Your task to perform on an android device: Open Yahoo.com Image 0: 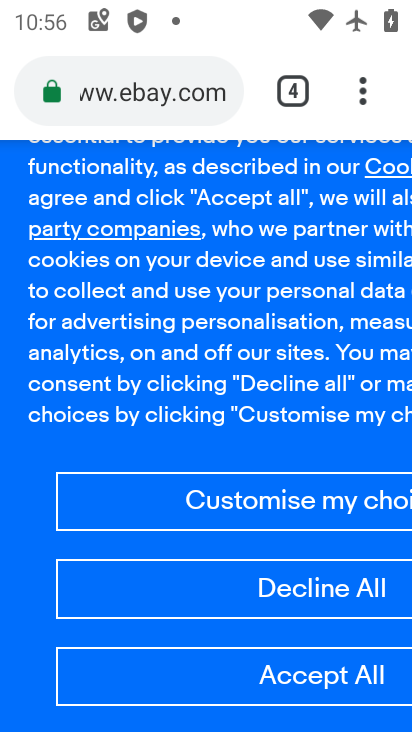
Step 0: press home button
Your task to perform on an android device: Open Yahoo.com Image 1: 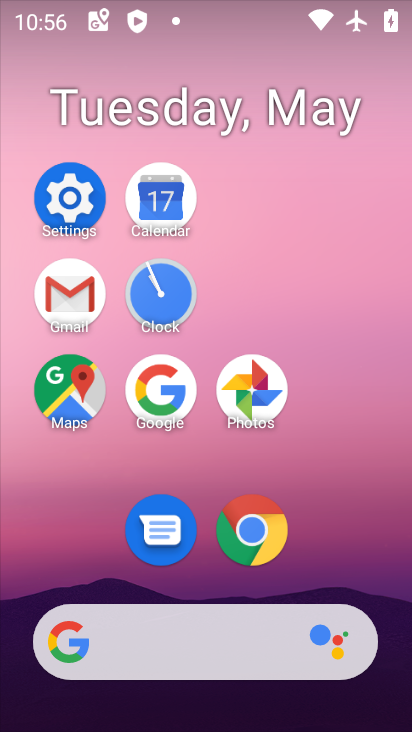
Step 1: click (259, 522)
Your task to perform on an android device: Open Yahoo.com Image 2: 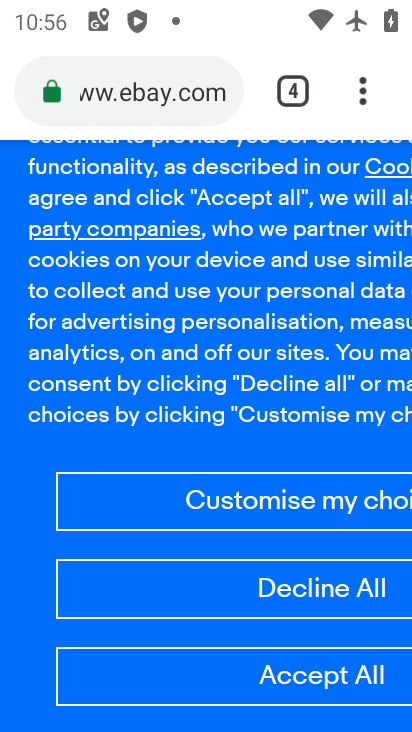
Step 2: click (298, 82)
Your task to perform on an android device: Open Yahoo.com Image 3: 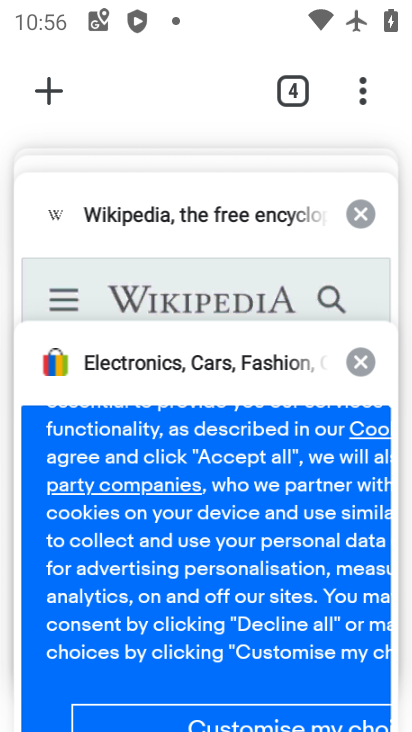
Step 3: drag from (235, 254) to (209, 460)
Your task to perform on an android device: Open Yahoo.com Image 4: 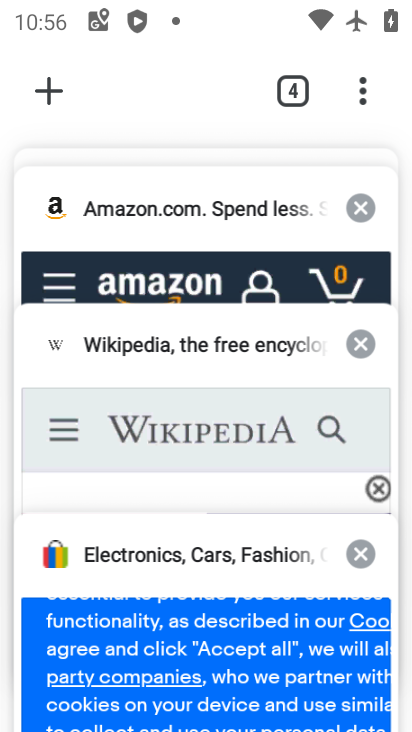
Step 4: drag from (212, 203) to (202, 453)
Your task to perform on an android device: Open Yahoo.com Image 5: 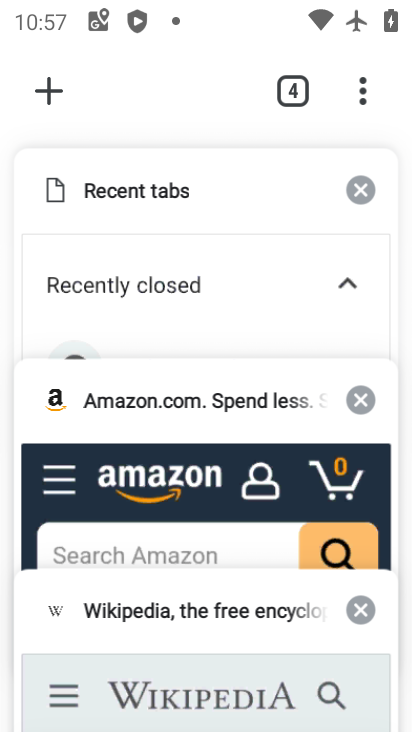
Step 5: click (65, 82)
Your task to perform on an android device: Open Yahoo.com Image 6: 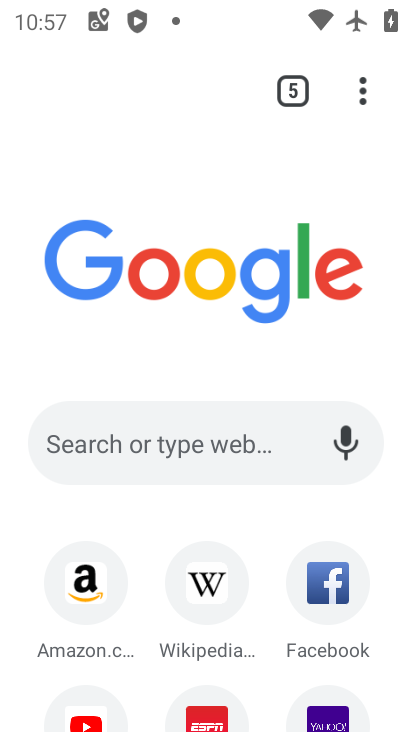
Step 6: click (310, 702)
Your task to perform on an android device: Open Yahoo.com Image 7: 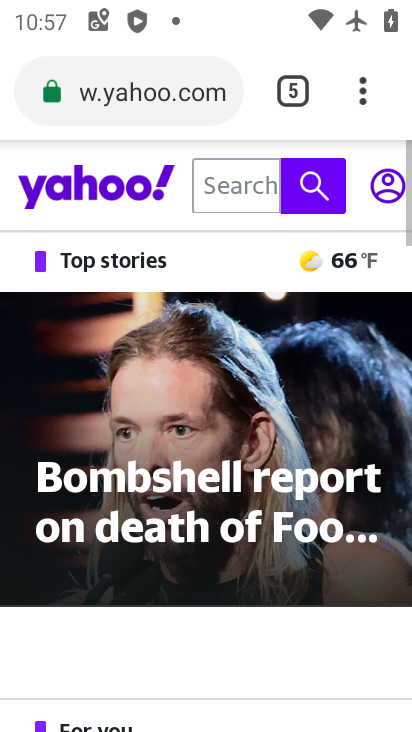
Step 7: task complete